Your task to perform on an android device: Go to notification settings Image 0: 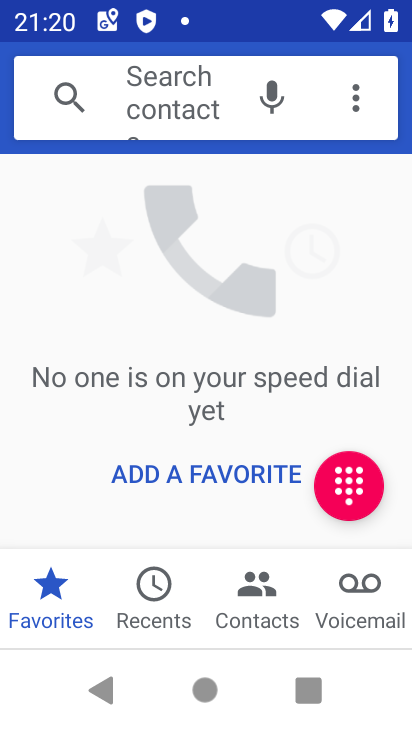
Step 0: press home button
Your task to perform on an android device: Go to notification settings Image 1: 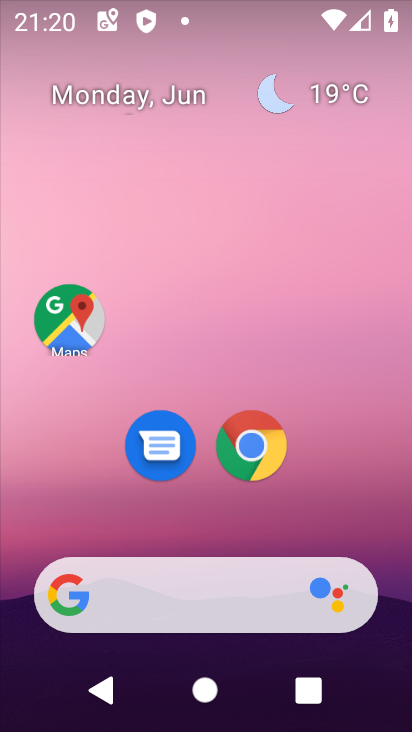
Step 1: drag from (203, 535) to (202, 108)
Your task to perform on an android device: Go to notification settings Image 2: 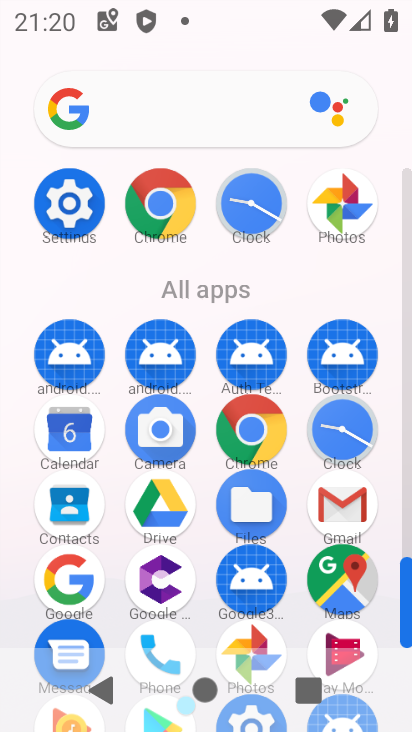
Step 2: click (66, 200)
Your task to perform on an android device: Go to notification settings Image 3: 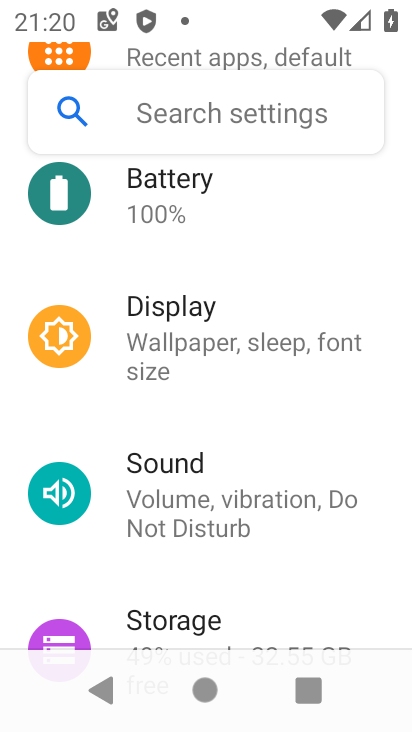
Step 3: drag from (236, 167) to (187, 662)
Your task to perform on an android device: Go to notification settings Image 4: 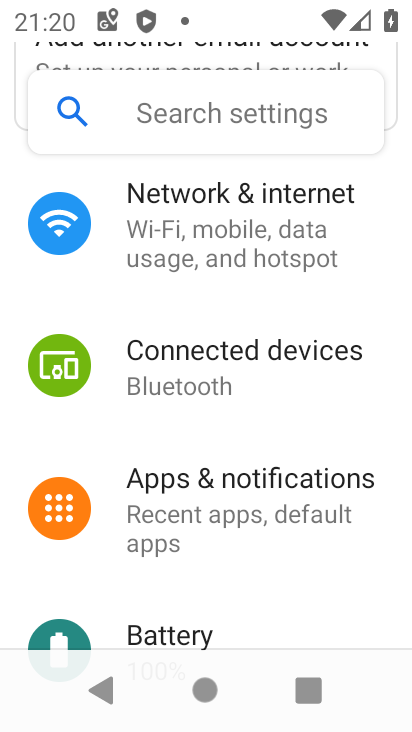
Step 4: click (231, 502)
Your task to perform on an android device: Go to notification settings Image 5: 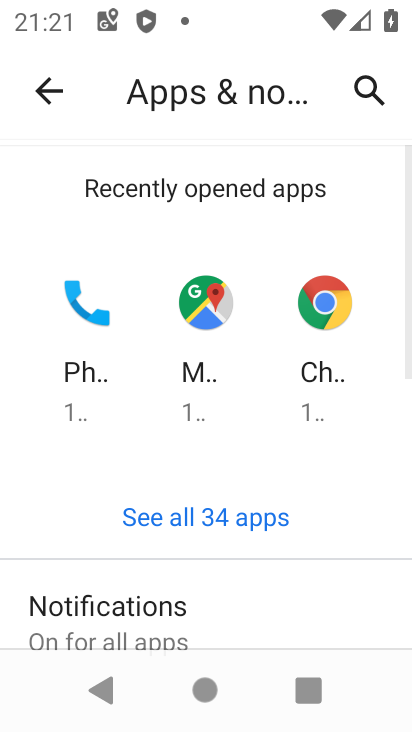
Step 5: click (206, 618)
Your task to perform on an android device: Go to notification settings Image 6: 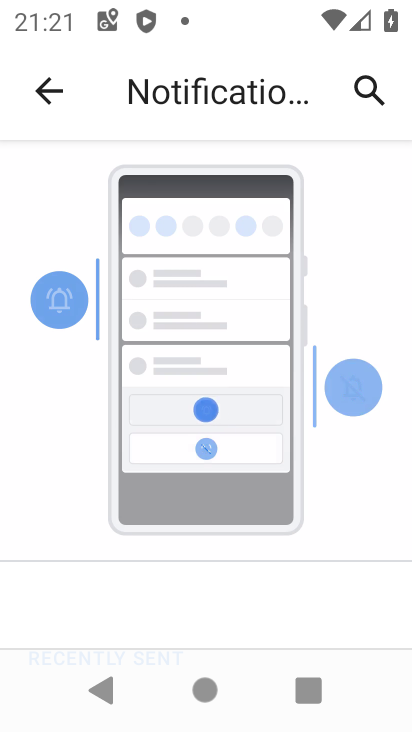
Step 6: drag from (185, 589) to (203, 117)
Your task to perform on an android device: Go to notification settings Image 7: 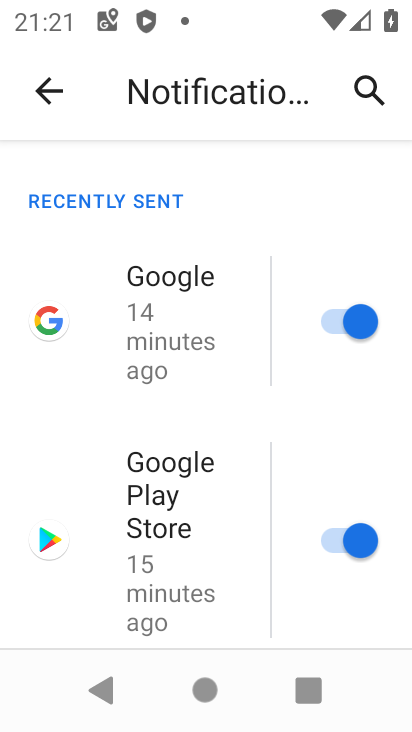
Step 7: drag from (215, 587) to (246, 21)
Your task to perform on an android device: Go to notification settings Image 8: 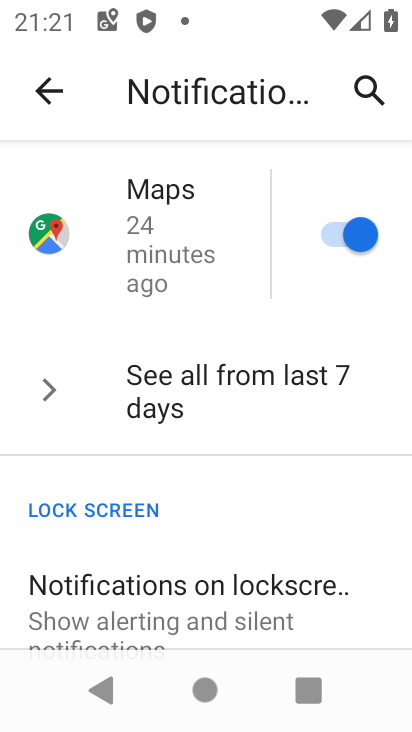
Step 8: drag from (195, 598) to (242, 284)
Your task to perform on an android device: Go to notification settings Image 9: 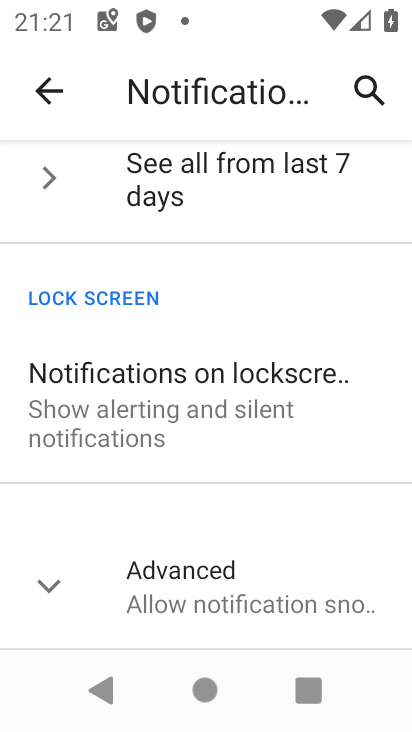
Step 9: drag from (180, 237) to (225, 614)
Your task to perform on an android device: Go to notification settings Image 10: 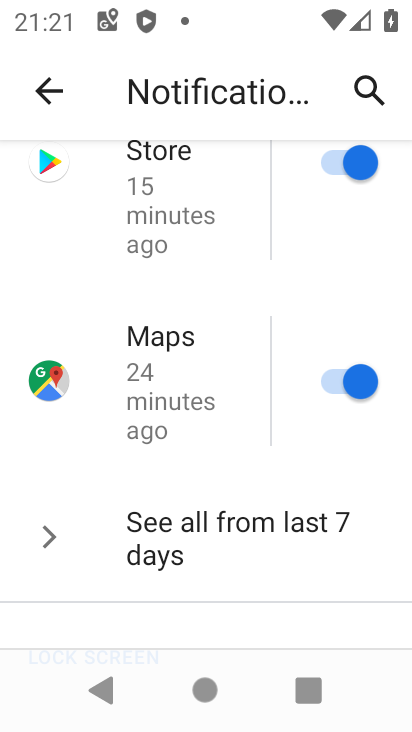
Step 10: click (332, 164)
Your task to perform on an android device: Go to notification settings Image 11: 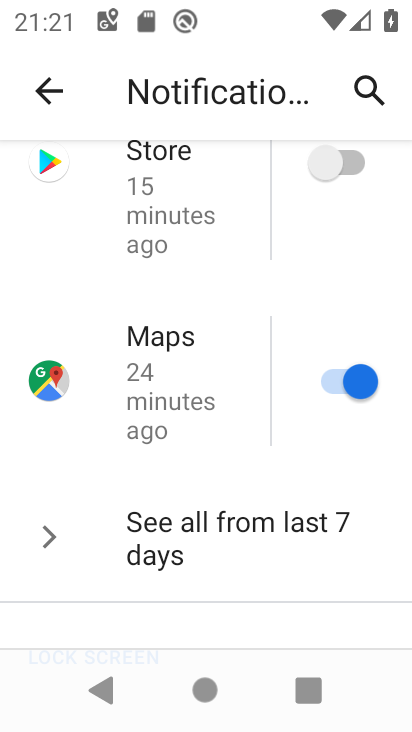
Step 11: click (338, 377)
Your task to perform on an android device: Go to notification settings Image 12: 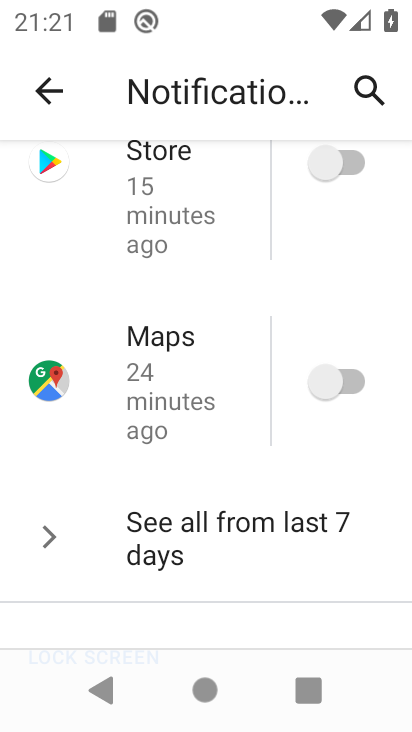
Step 12: drag from (211, 569) to (248, 362)
Your task to perform on an android device: Go to notification settings Image 13: 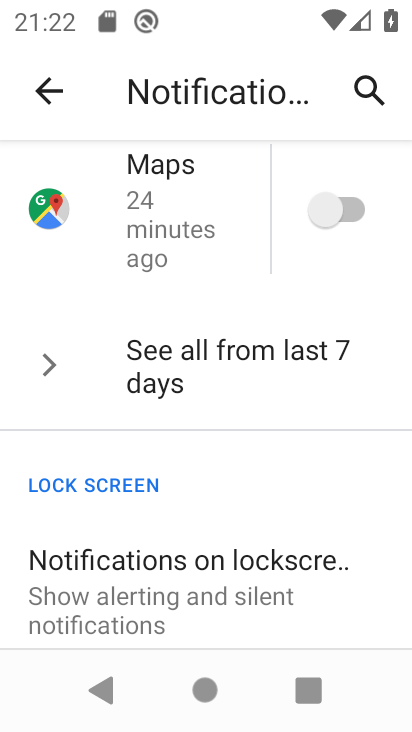
Step 13: drag from (209, 602) to (222, 182)
Your task to perform on an android device: Go to notification settings Image 14: 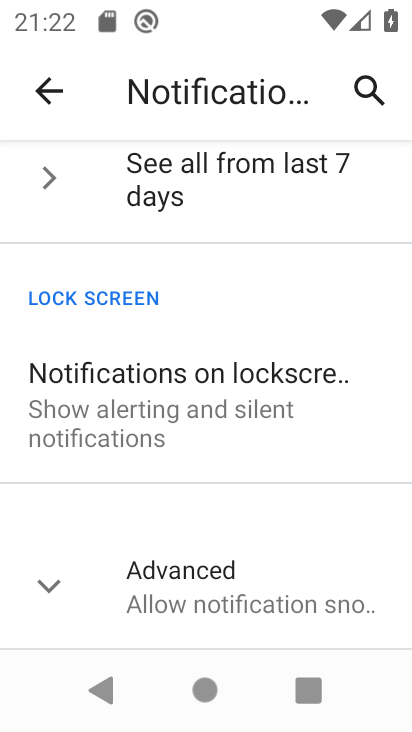
Step 14: click (39, 580)
Your task to perform on an android device: Go to notification settings Image 15: 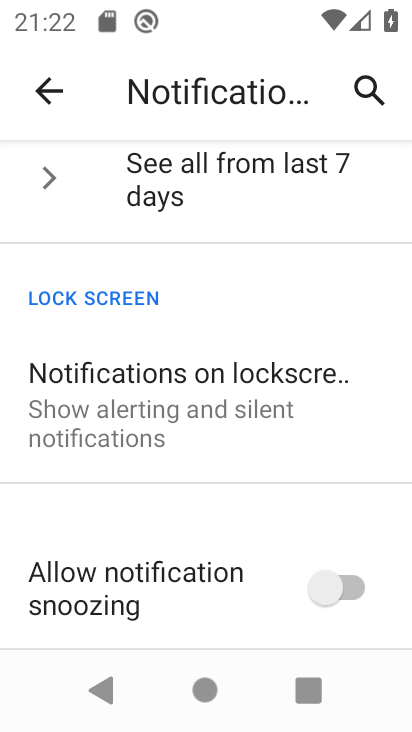
Step 15: task complete